Your task to perform on an android device: open a new tab in the chrome app Image 0: 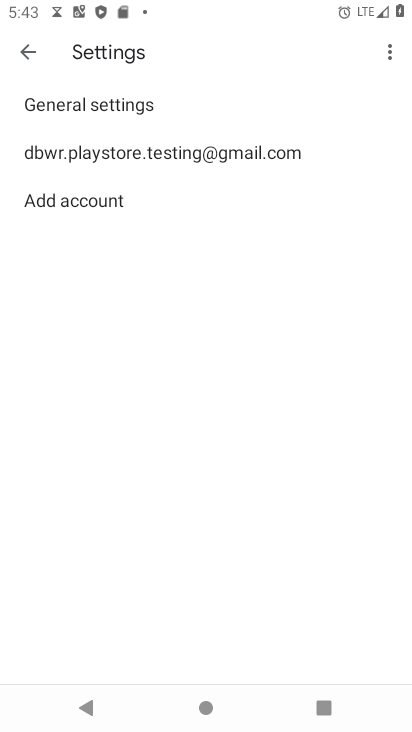
Step 0: press home button
Your task to perform on an android device: open a new tab in the chrome app Image 1: 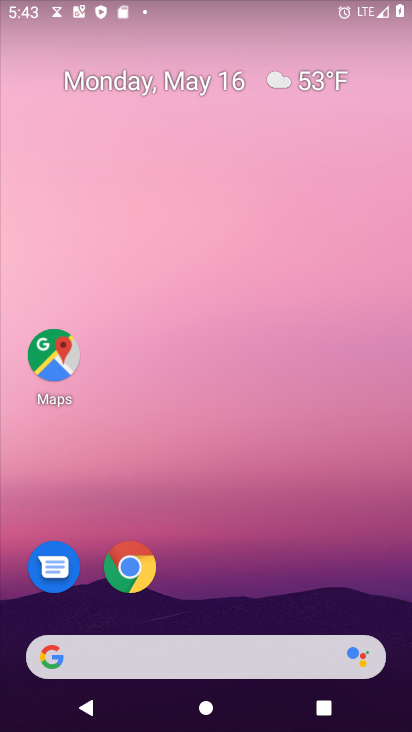
Step 1: drag from (307, 592) to (274, 3)
Your task to perform on an android device: open a new tab in the chrome app Image 2: 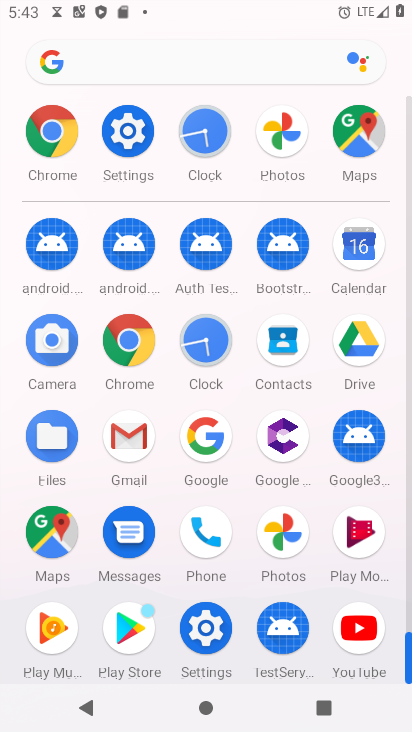
Step 2: click (135, 367)
Your task to perform on an android device: open a new tab in the chrome app Image 3: 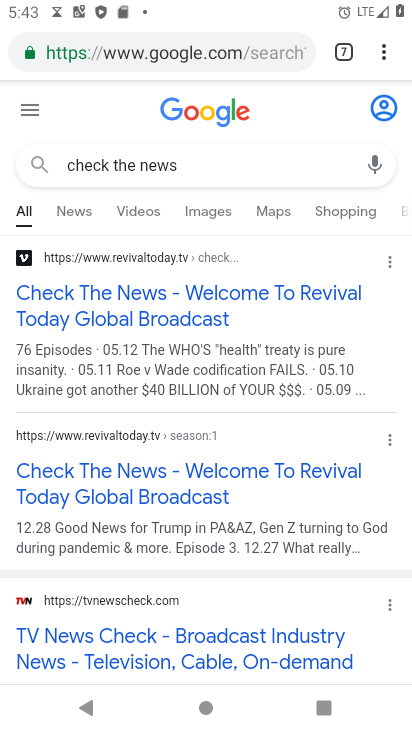
Step 3: task complete